Your task to perform on an android device: delete the emails in spam in the gmail app Image 0: 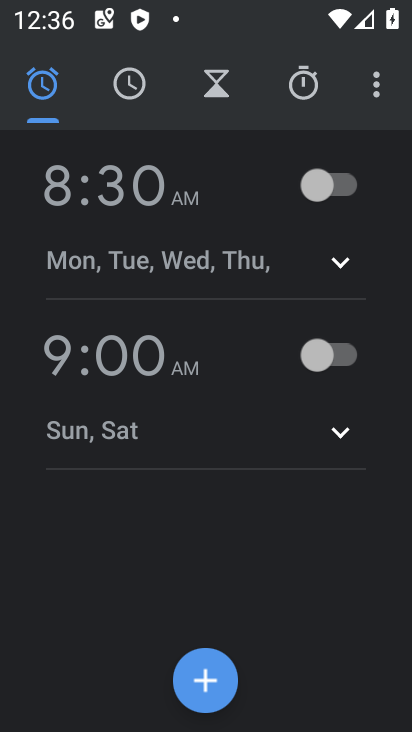
Step 0: press home button
Your task to perform on an android device: delete the emails in spam in the gmail app Image 1: 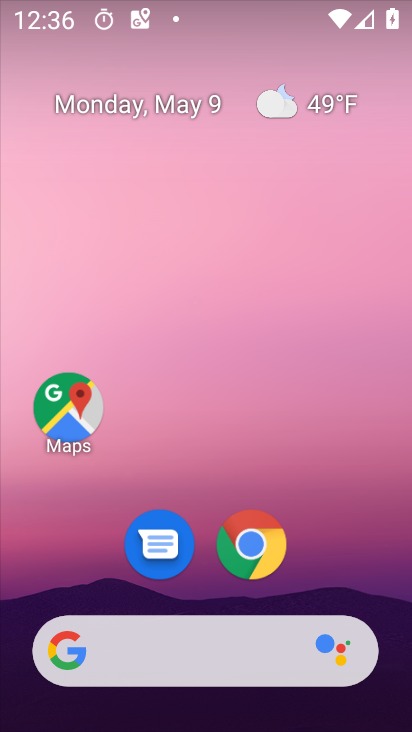
Step 1: drag from (161, 598) to (290, 9)
Your task to perform on an android device: delete the emails in spam in the gmail app Image 2: 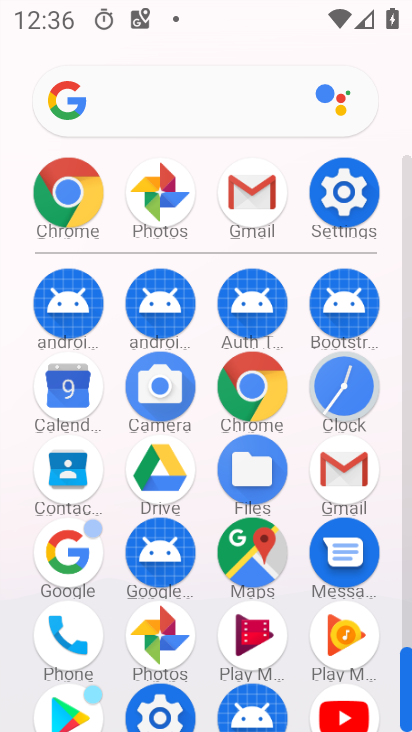
Step 2: click (333, 454)
Your task to perform on an android device: delete the emails in spam in the gmail app Image 3: 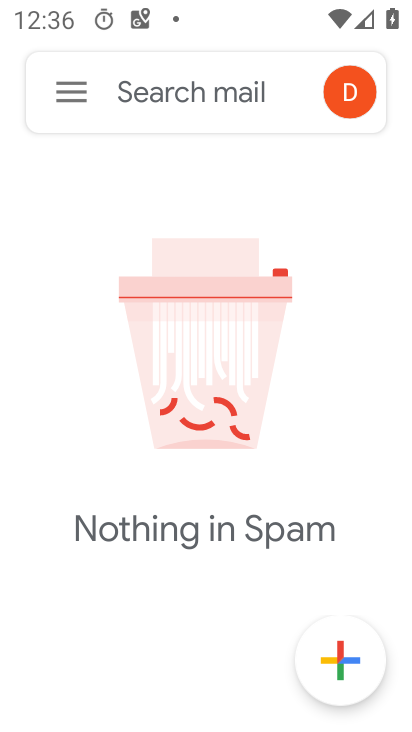
Step 3: click (75, 92)
Your task to perform on an android device: delete the emails in spam in the gmail app Image 4: 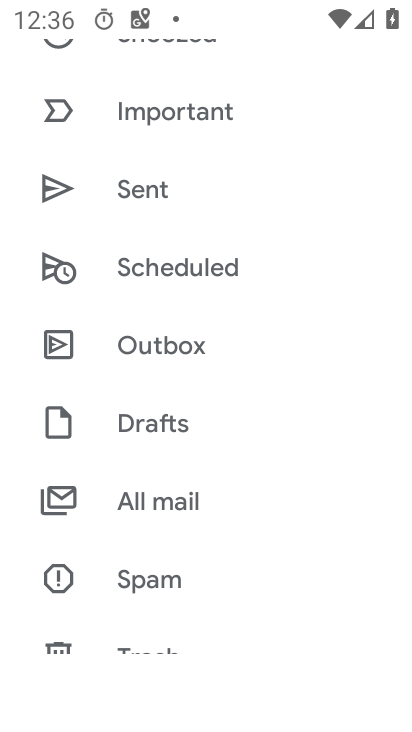
Step 4: click (354, 272)
Your task to perform on an android device: delete the emails in spam in the gmail app Image 5: 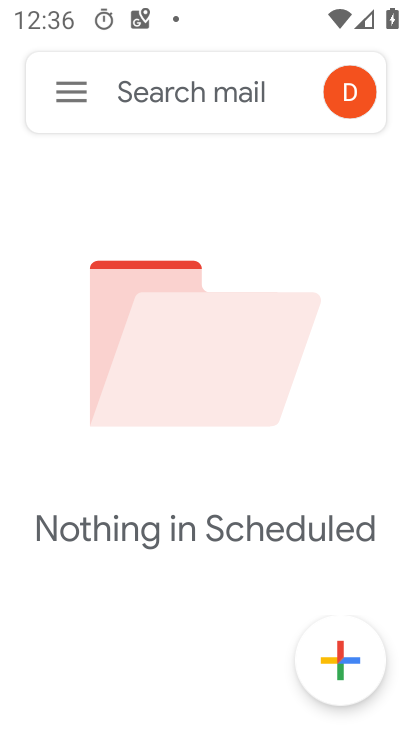
Step 5: task complete